Your task to perform on an android device: Go to display settings Image 0: 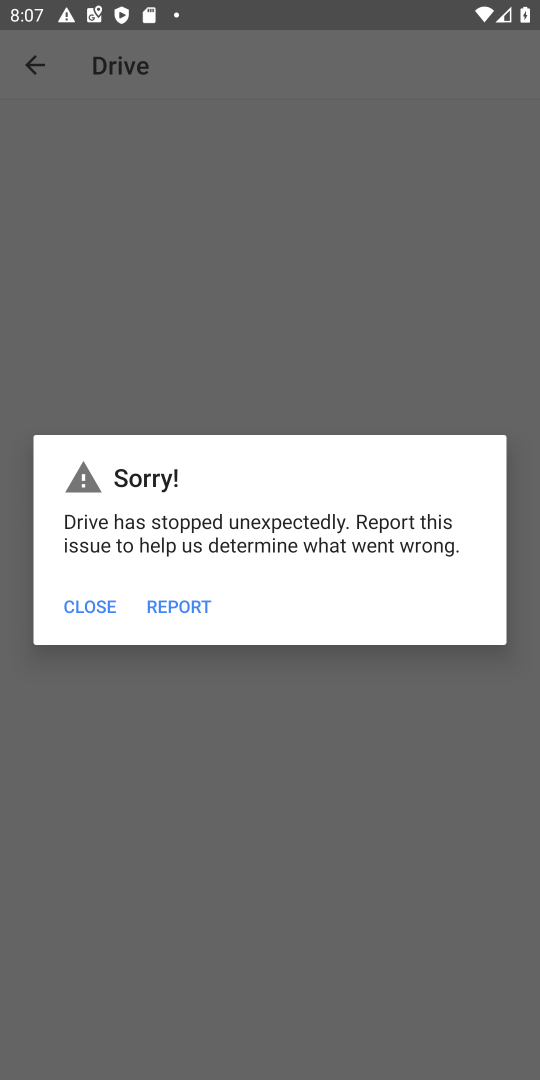
Step 0: press home button
Your task to perform on an android device: Go to display settings Image 1: 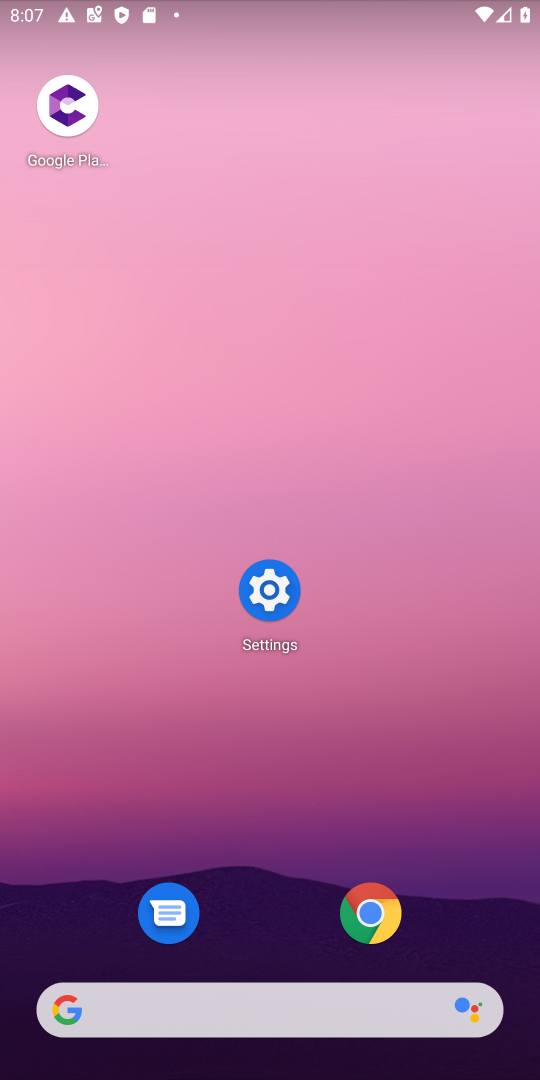
Step 1: click (267, 588)
Your task to perform on an android device: Go to display settings Image 2: 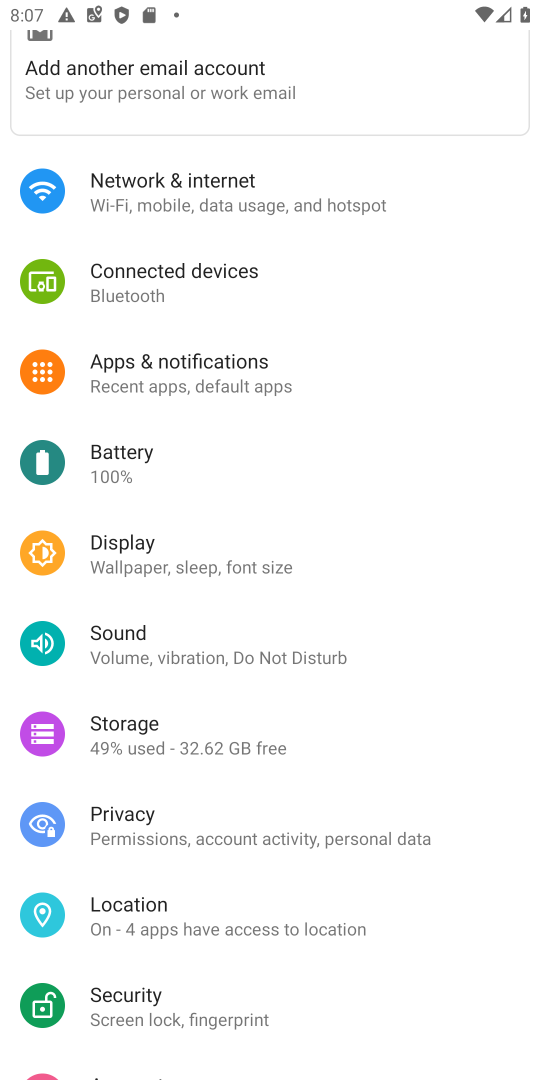
Step 2: click (141, 553)
Your task to perform on an android device: Go to display settings Image 3: 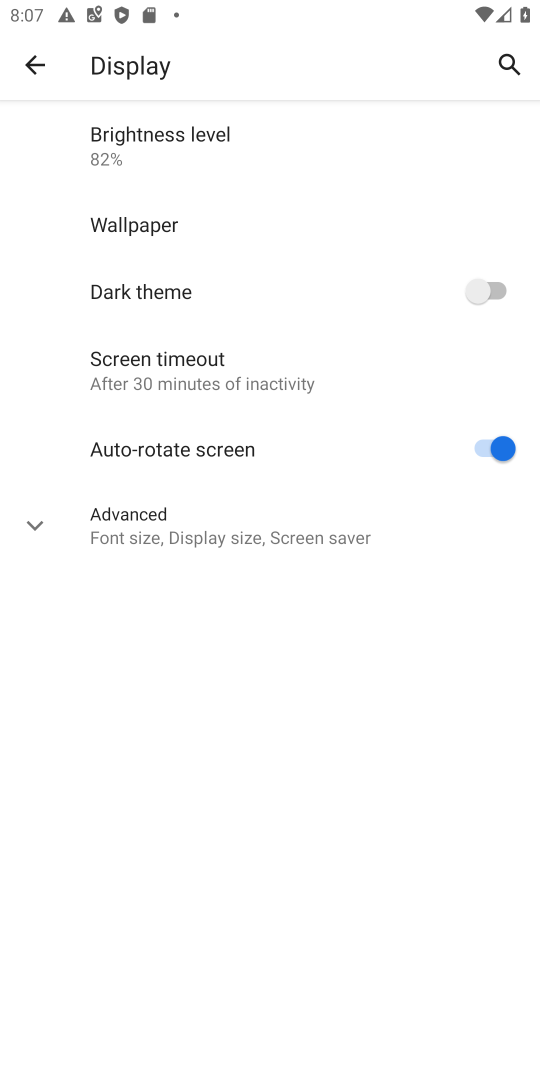
Step 3: task complete